Your task to perform on an android device: toggle location history Image 0: 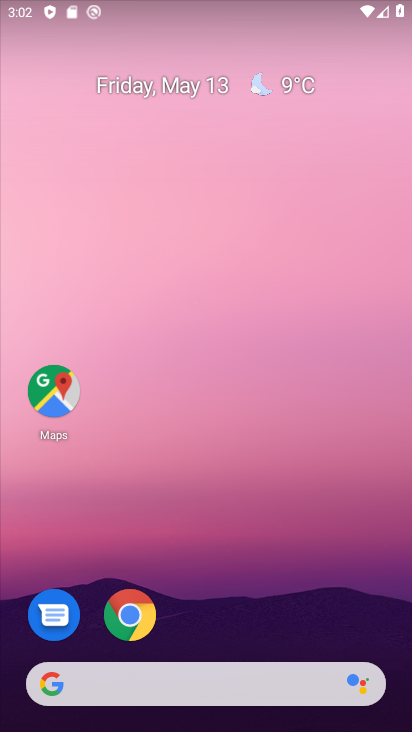
Step 0: drag from (290, 360) to (210, 240)
Your task to perform on an android device: toggle location history Image 1: 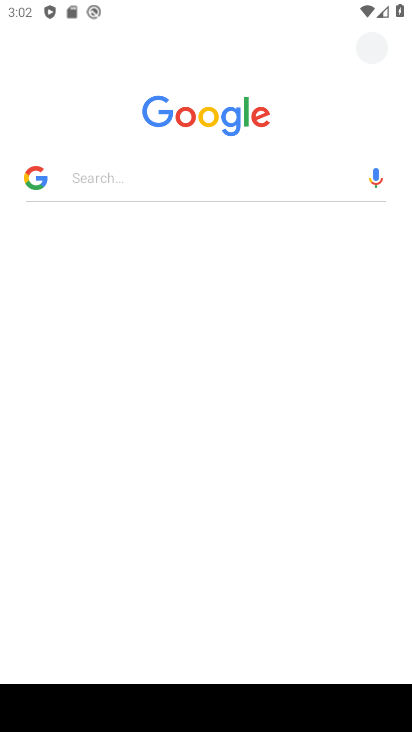
Step 1: drag from (321, 565) to (95, 15)
Your task to perform on an android device: toggle location history Image 2: 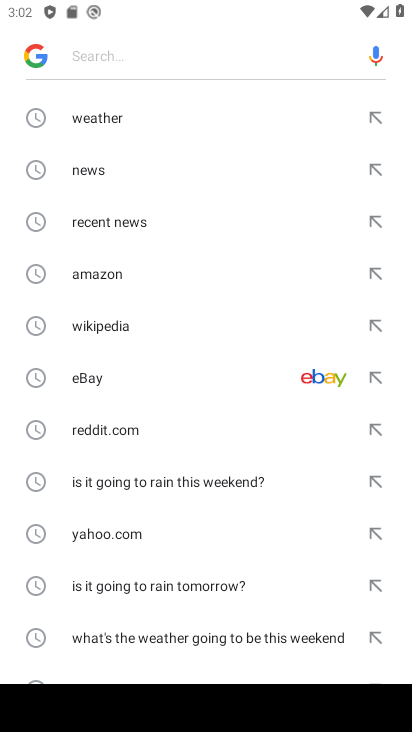
Step 2: press back button
Your task to perform on an android device: toggle location history Image 3: 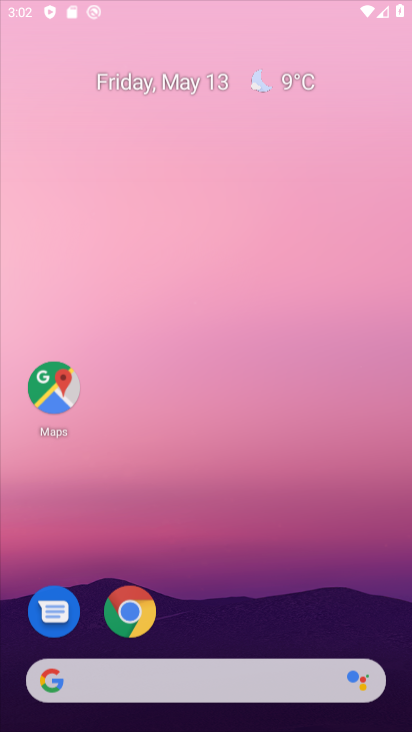
Step 3: press back button
Your task to perform on an android device: toggle location history Image 4: 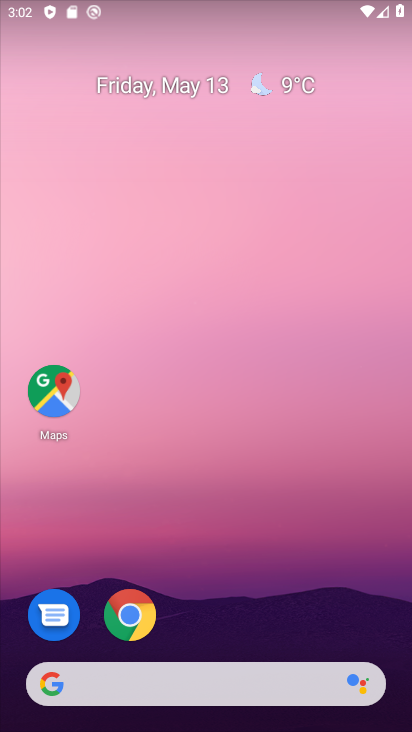
Step 4: drag from (334, 613) to (130, 6)
Your task to perform on an android device: toggle location history Image 5: 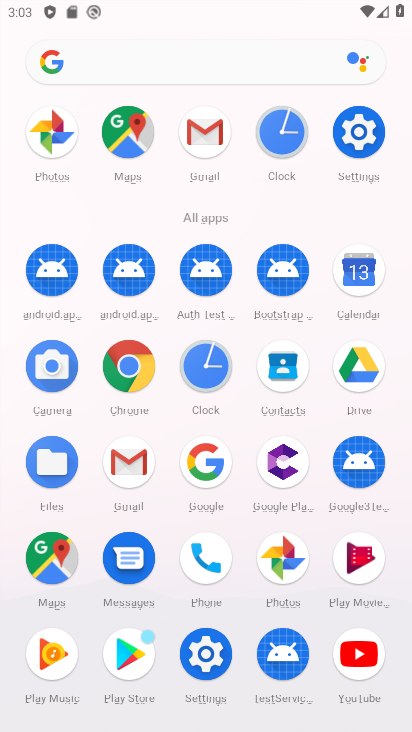
Step 5: click (121, 133)
Your task to perform on an android device: toggle location history Image 6: 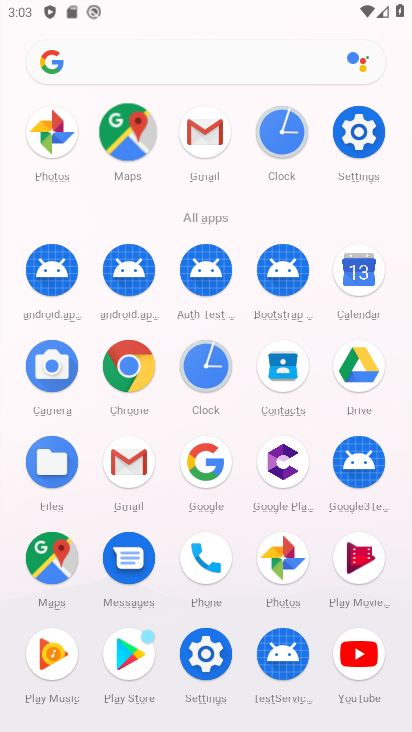
Step 6: click (122, 125)
Your task to perform on an android device: toggle location history Image 7: 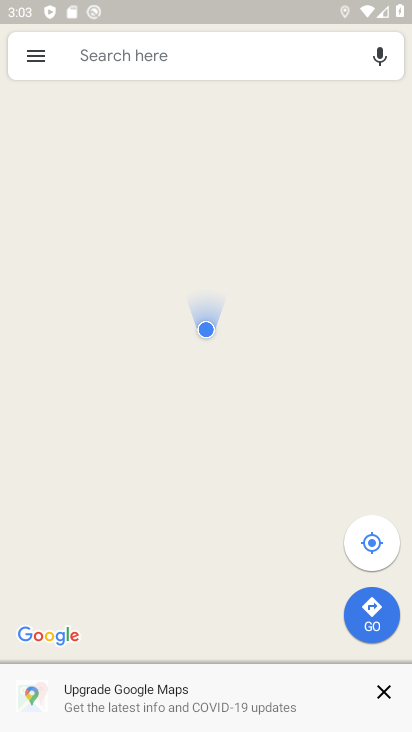
Step 7: click (30, 53)
Your task to perform on an android device: toggle location history Image 8: 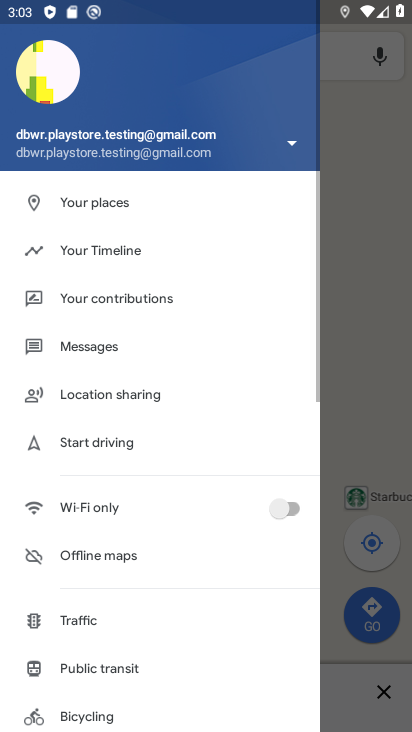
Step 8: click (134, 252)
Your task to perform on an android device: toggle location history Image 9: 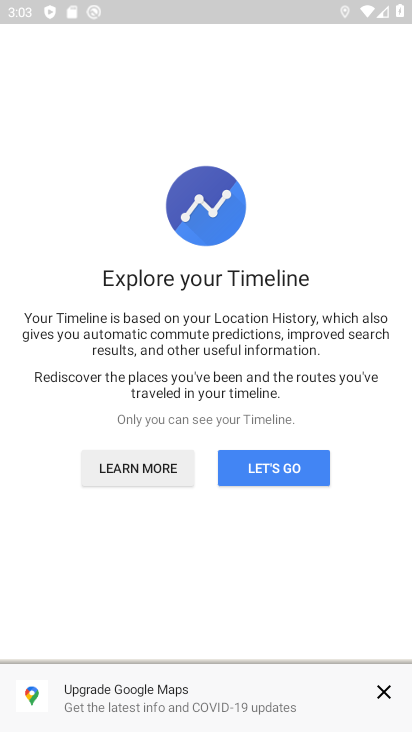
Step 9: click (271, 476)
Your task to perform on an android device: toggle location history Image 10: 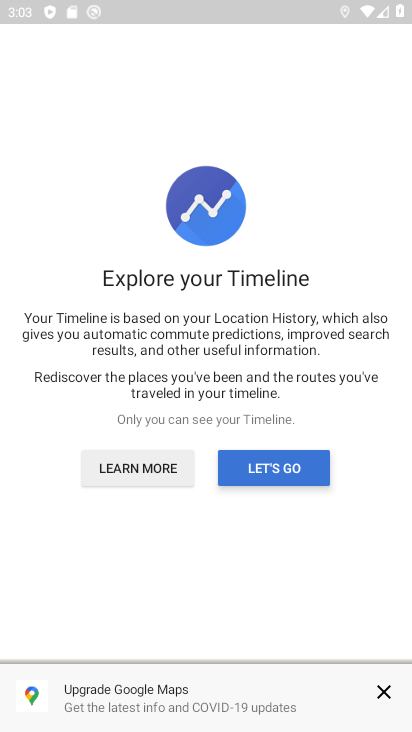
Step 10: click (266, 457)
Your task to perform on an android device: toggle location history Image 11: 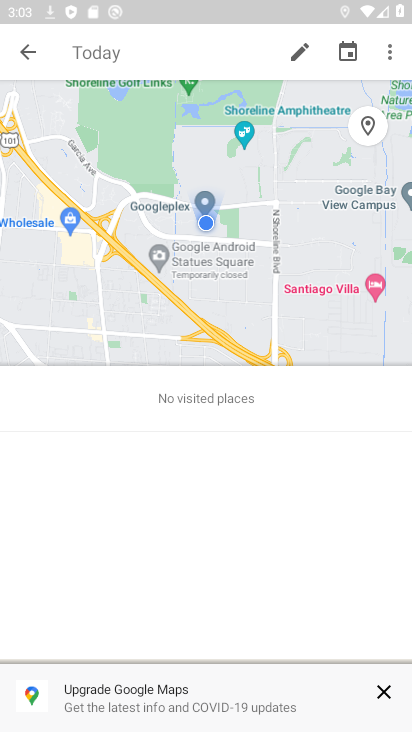
Step 11: click (381, 53)
Your task to perform on an android device: toggle location history Image 12: 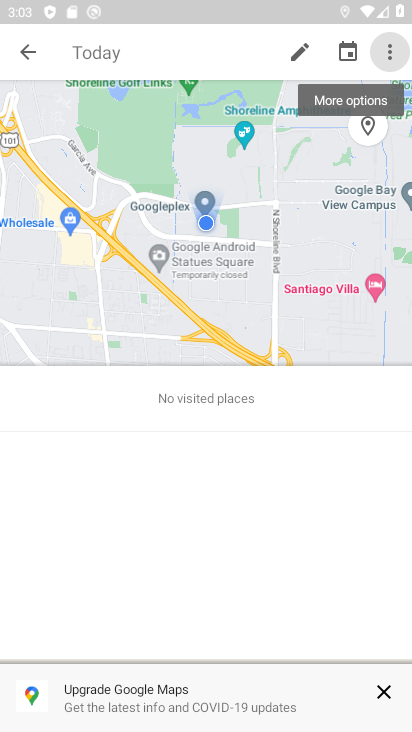
Step 12: click (386, 63)
Your task to perform on an android device: toggle location history Image 13: 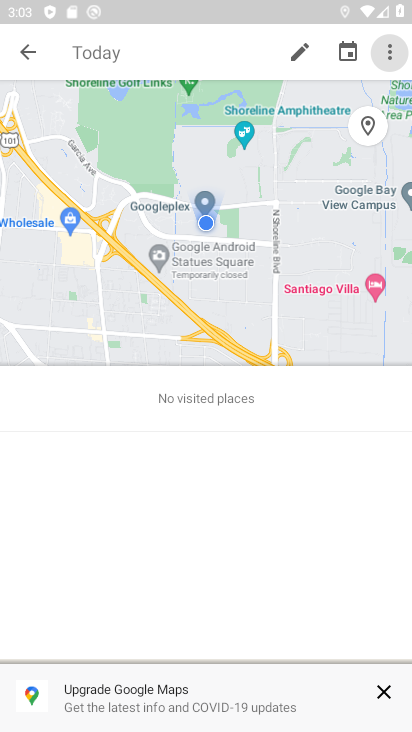
Step 13: click (387, 50)
Your task to perform on an android device: toggle location history Image 14: 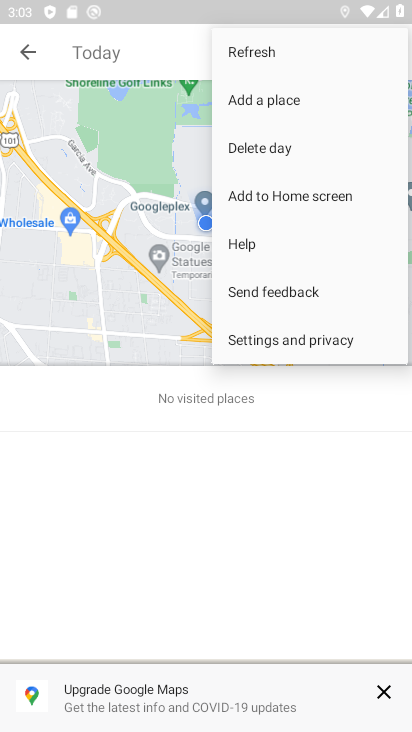
Step 14: click (281, 325)
Your task to perform on an android device: toggle location history Image 15: 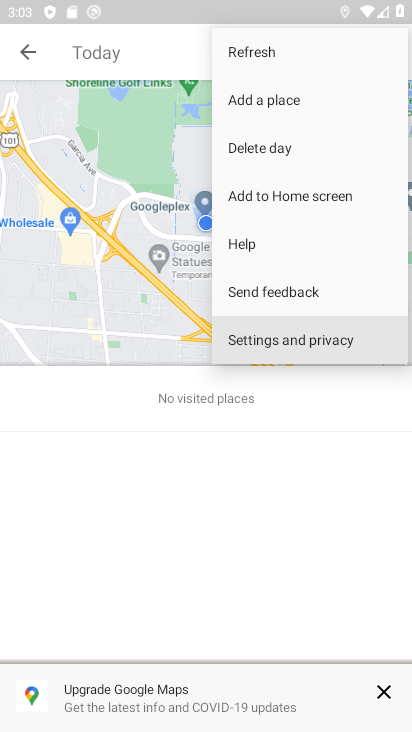
Step 15: click (297, 344)
Your task to perform on an android device: toggle location history Image 16: 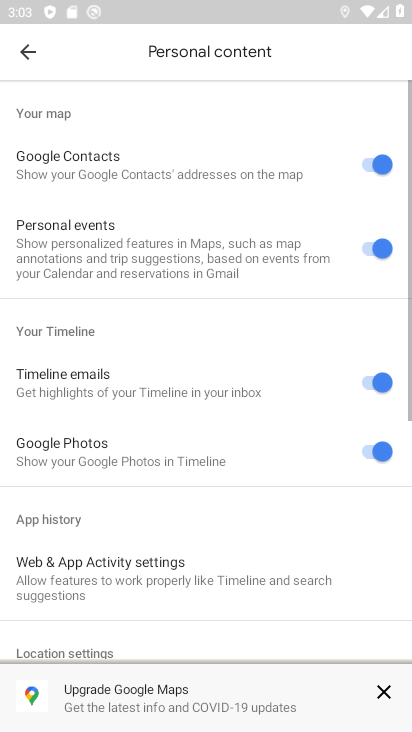
Step 16: task complete